Your task to perform on an android device: open app "Pluto TV - Live TV and Movies" (install if not already installed) and enter user name: "wools@yahoo.com" and password: "misplacing" Image 0: 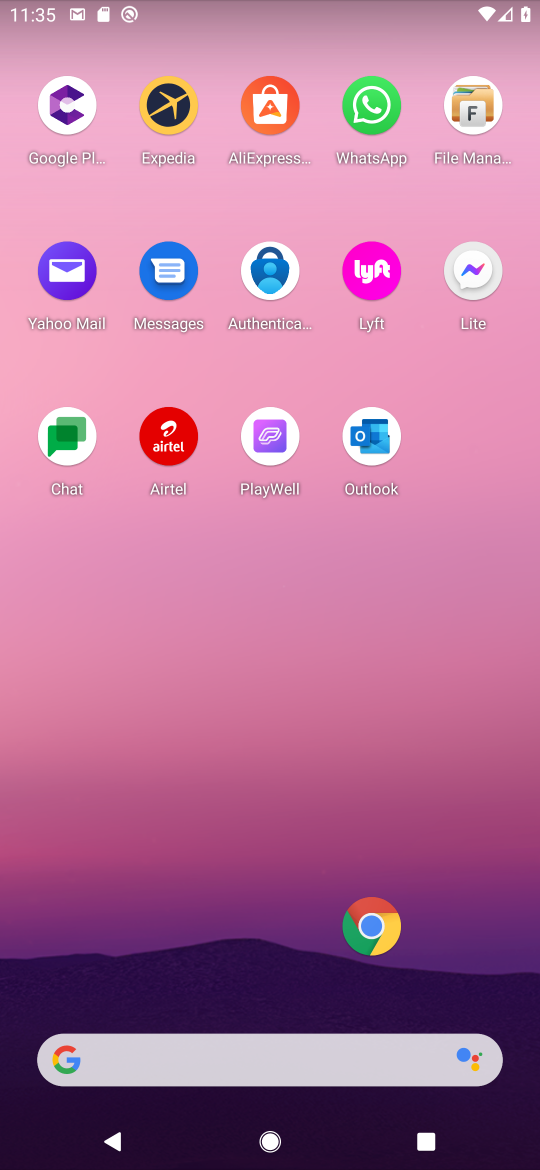
Step 0: drag from (274, 987) to (60, 282)
Your task to perform on an android device: open app "Pluto TV - Live TV and Movies" (install if not already installed) and enter user name: "wools@yahoo.com" and password: "misplacing" Image 1: 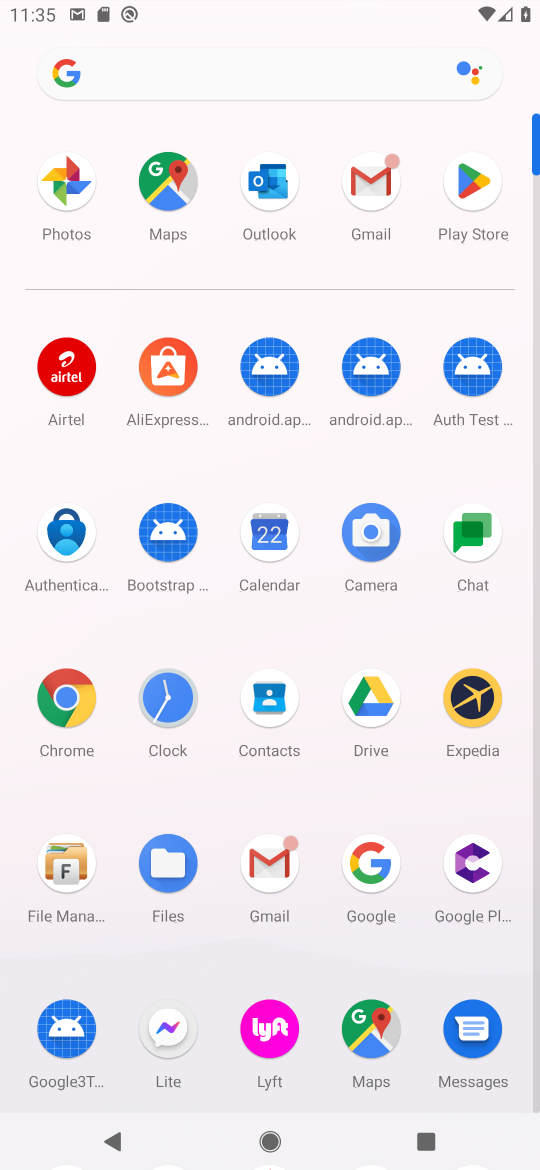
Step 1: click (453, 186)
Your task to perform on an android device: open app "Pluto TV - Live TV and Movies" (install if not already installed) and enter user name: "wools@yahoo.com" and password: "misplacing" Image 2: 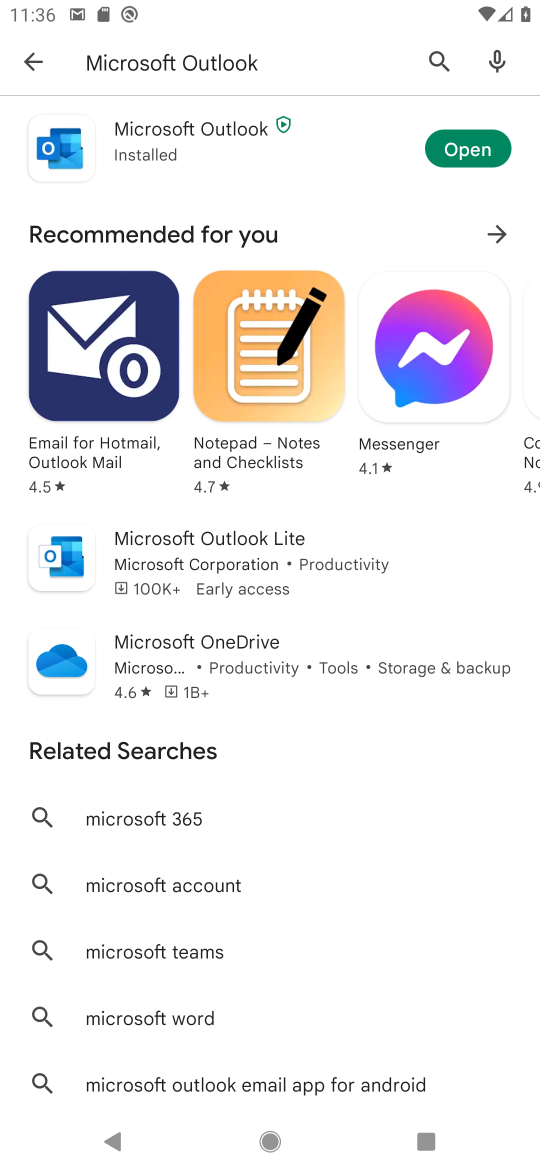
Step 2: press back button
Your task to perform on an android device: open app "Pluto TV - Live TV and Movies" (install if not already installed) and enter user name: "wools@yahoo.com" and password: "misplacing" Image 3: 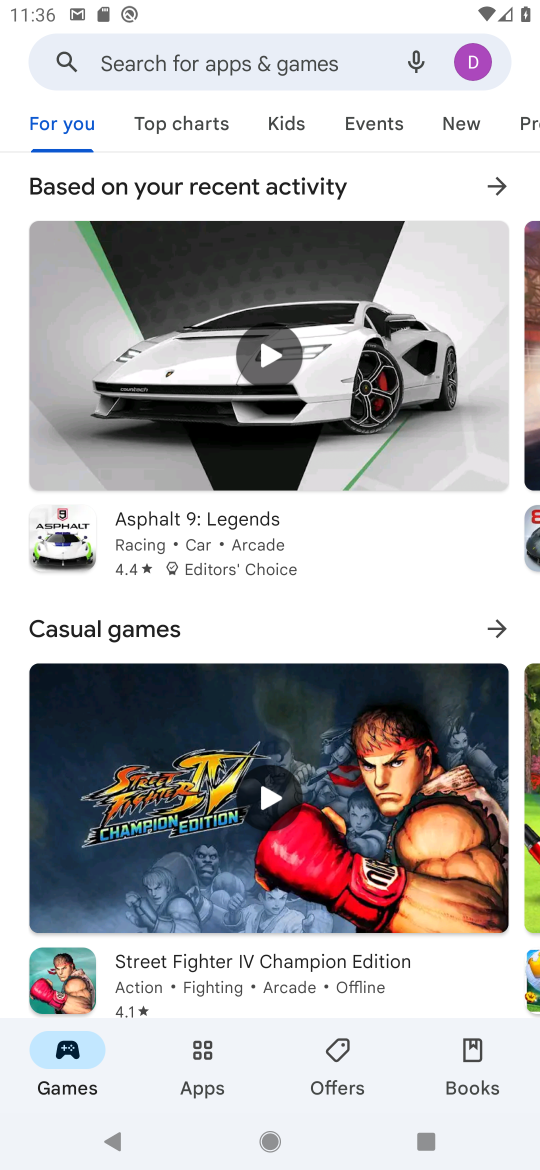
Step 3: click (257, 56)
Your task to perform on an android device: open app "Pluto TV - Live TV and Movies" (install if not already installed) and enter user name: "wools@yahoo.com" and password: "misplacing" Image 4: 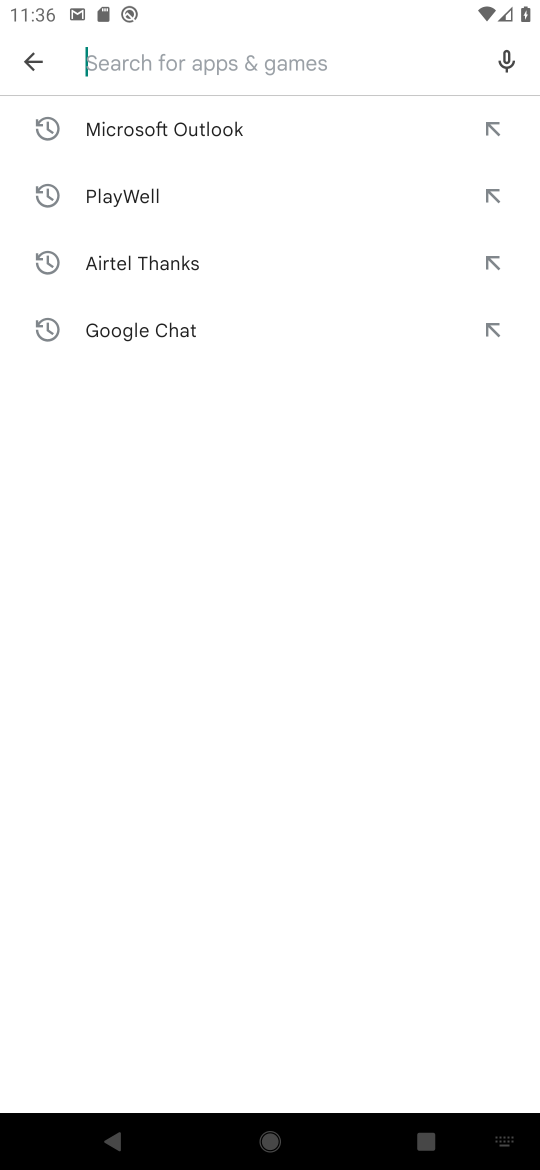
Step 4: type "Pluto TV - Live TV and Movies"
Your task to perform on an android device: open app "Pluto TV - Live TV and Movies" (install if not already installed) and enter user name: "wools@yahoo.com" and password: "misplacing" Image 5: 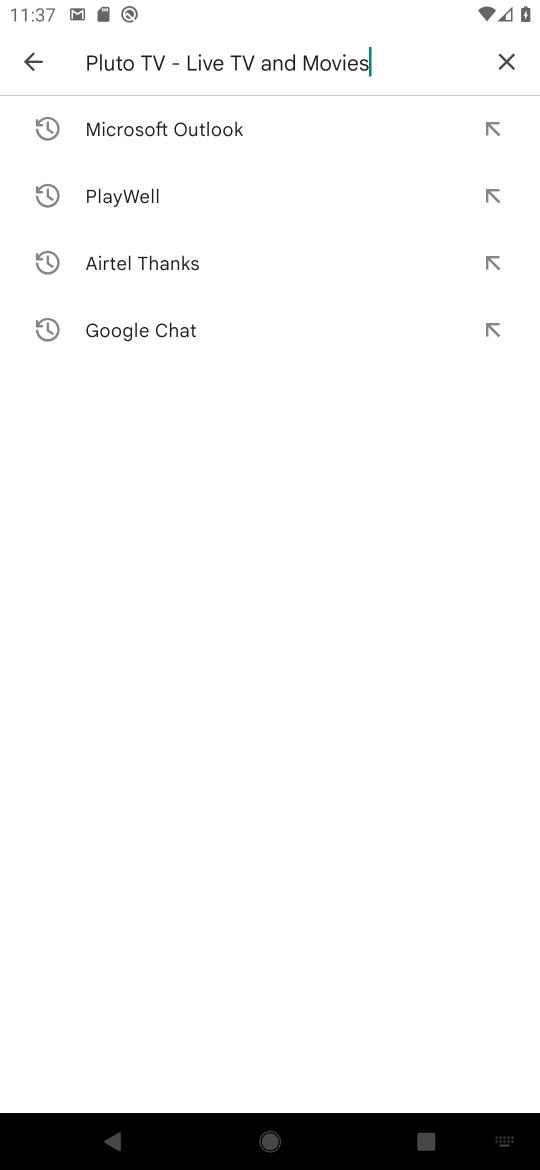
Step 5: press enter
Your task to perform on an android device: open app "Pluto TV - Live TV and Movies" (install if not already installed) and enter user name: "wools@yahoo.com" and password: "misplacing" Image 6: 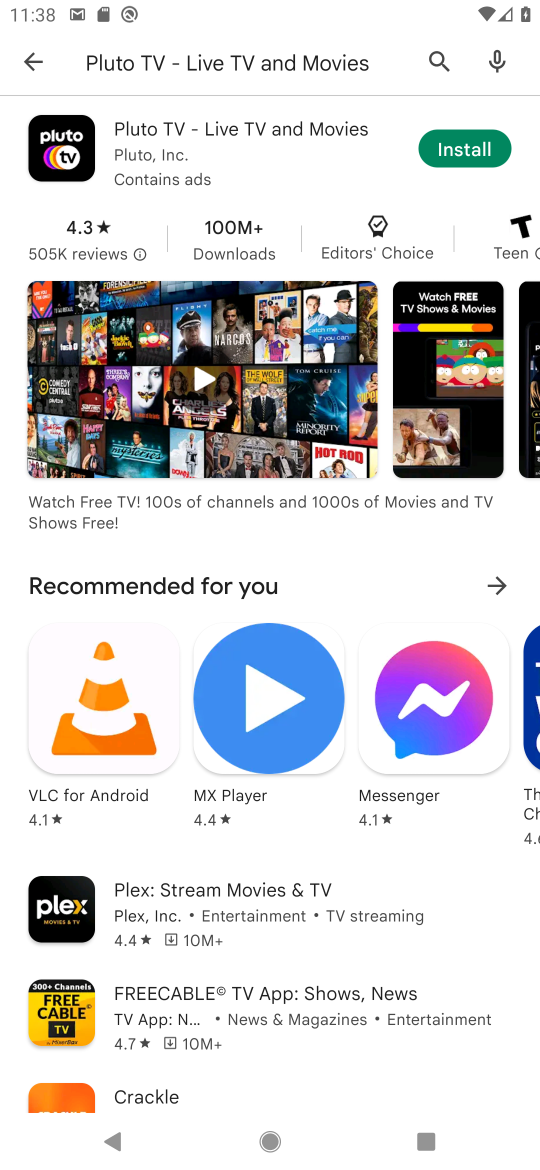
Step 6: click (465, 164)
Your task to perform on an android device: open app "Pluto TV - Live TV and Movies" (install if not already installed) and enter user name: "wools@yahoo.com" and password: "misplacing" Image 7: 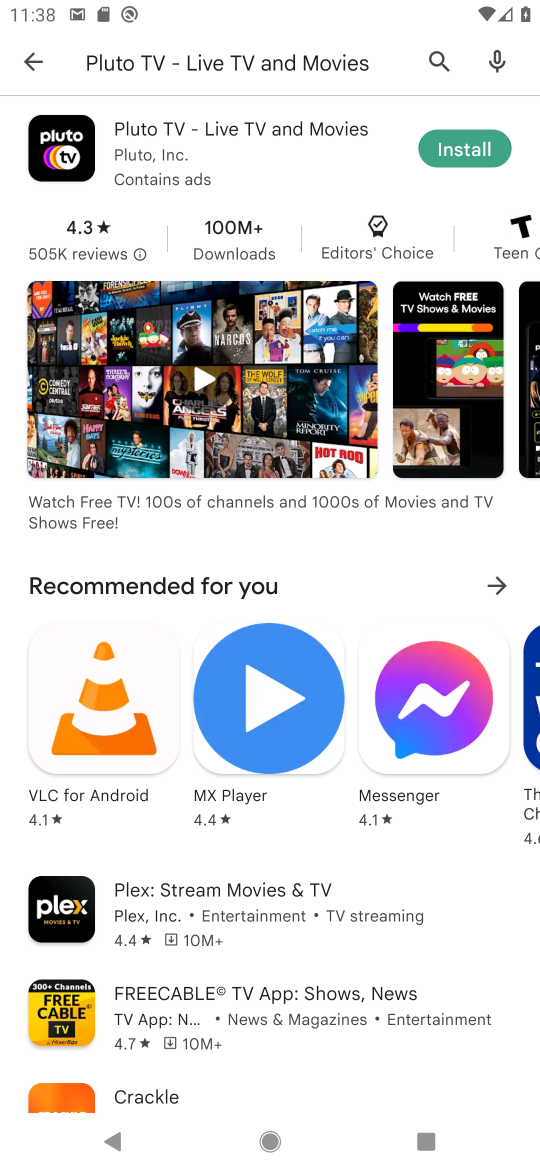
Step 7: click (465, 144)
Your task to perform on an android device: open app "Pluto TV - Live TV and Movies" (install if not already installed) and enter user name: "wools@yahoo.com" and password: "misplacing" Image 8: 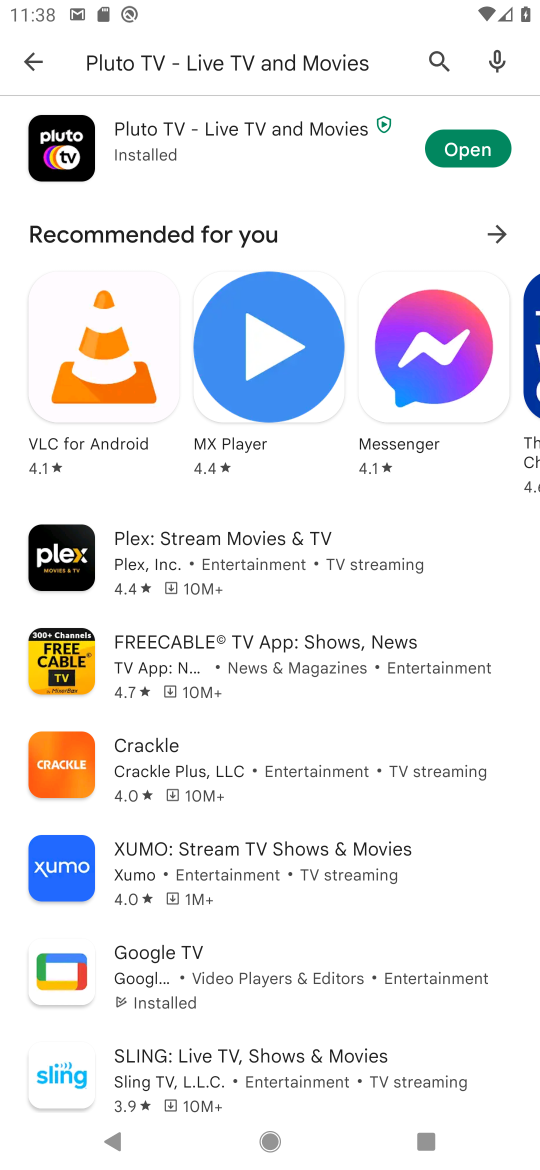
Step 8: click (499, 163)
Your task to perform on an android device: open app "Pluto TV - Live TV and Movies" (install if not already installed) and enter user name: "wools@yahoo.com" and password: "misplacing" Image 9: 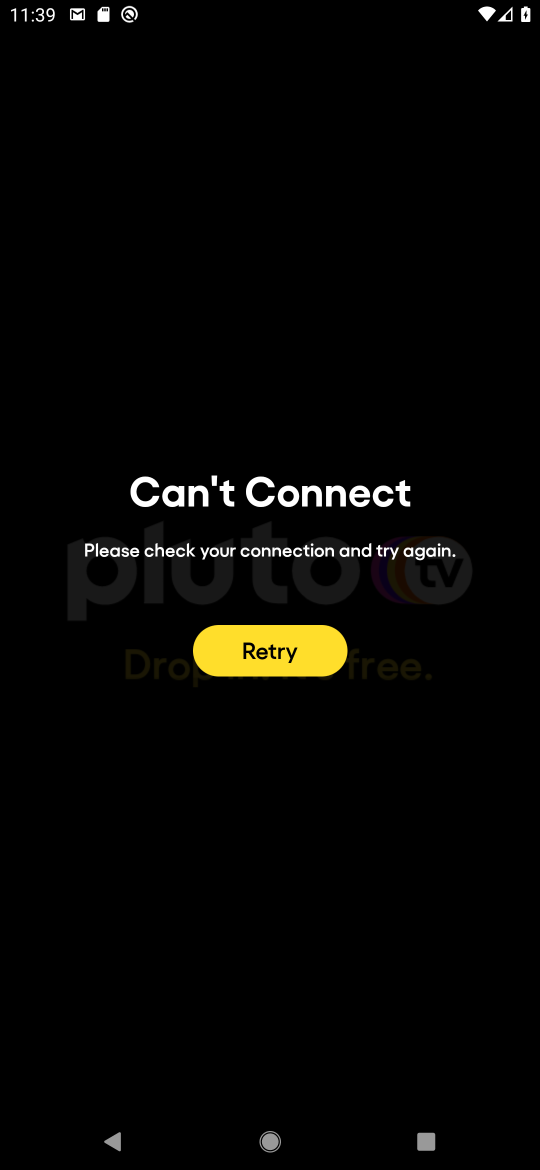
Step 9: click (269, 651)
Your task to perform on an android device: open app "Pluto TV - Live TV and Movies" (install if not already installed) and enter user name: "wools@yahoo.com" and password: "misplacing" Image 10: 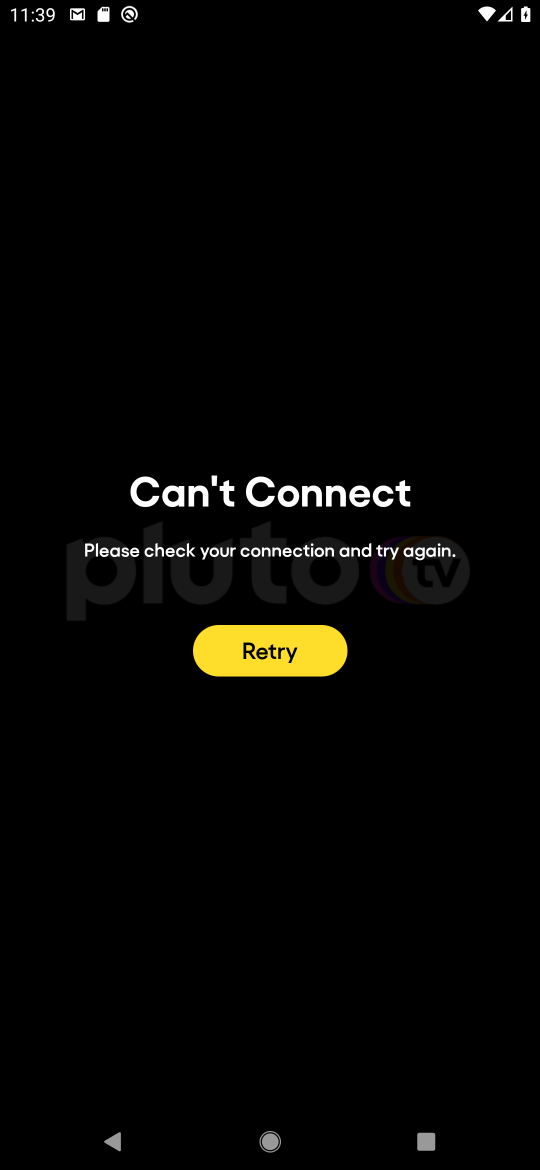
Step 10: click (271, 651)
Your task to perform on an android device: open app "Pluto TV - Live TV and Movies" (install if not already installed) and enter user name: "wools@yahoo.com" and password: "misplacing" Image 11: 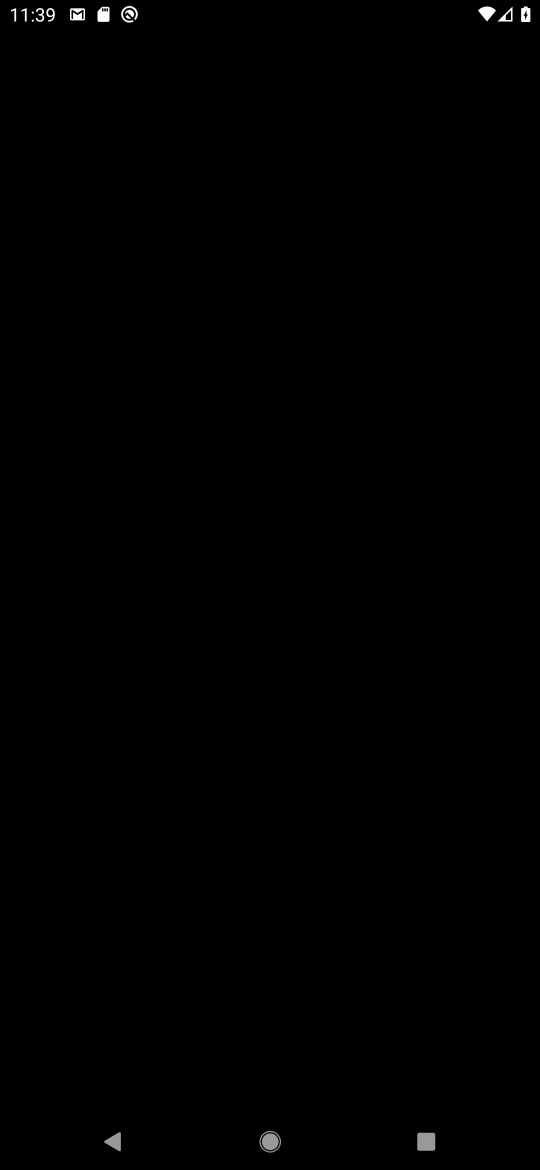
Step 11: task complete